Your task to perform on an android device: change the clock style Image 0: 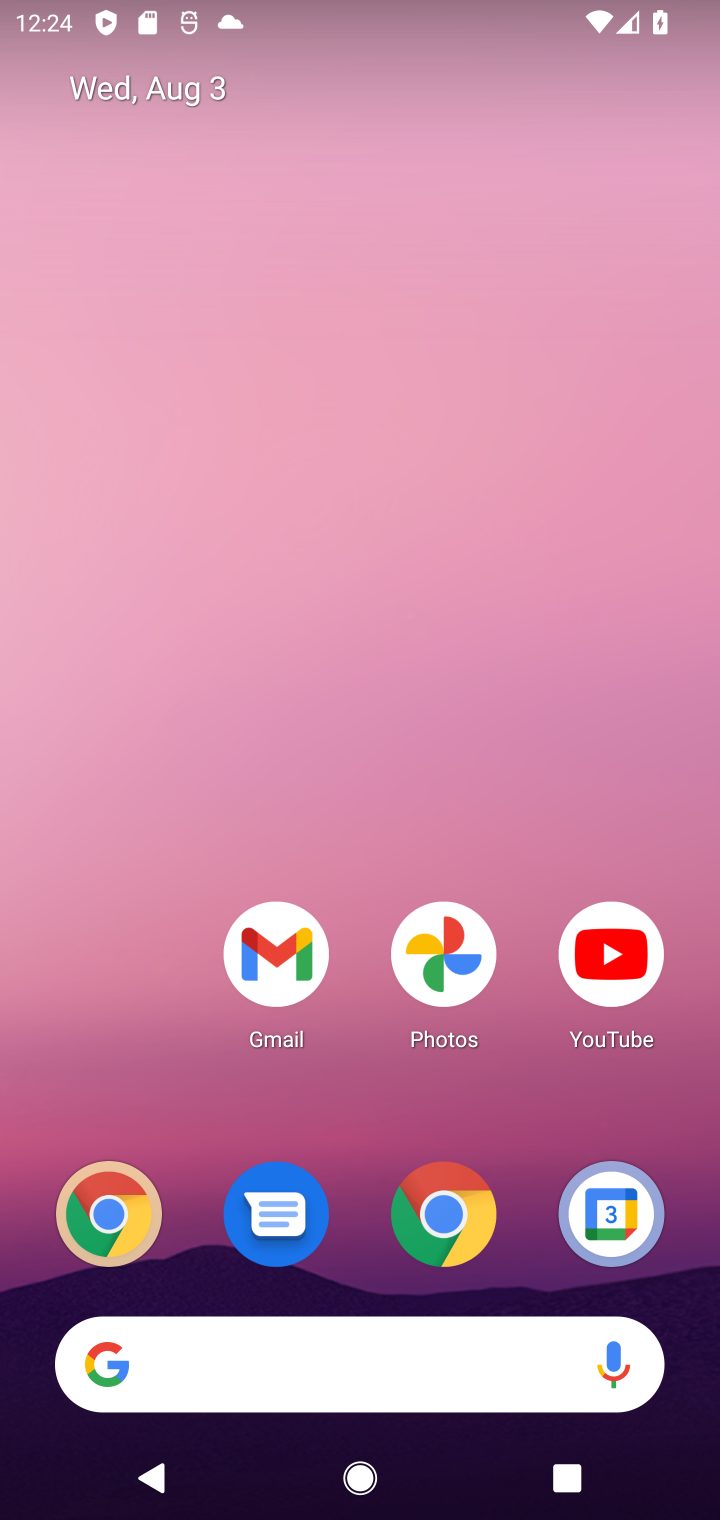
Step 0: drag from (464, 1446) to (354, 310)
Your task to perform on an android device: change the clock style Image 1: 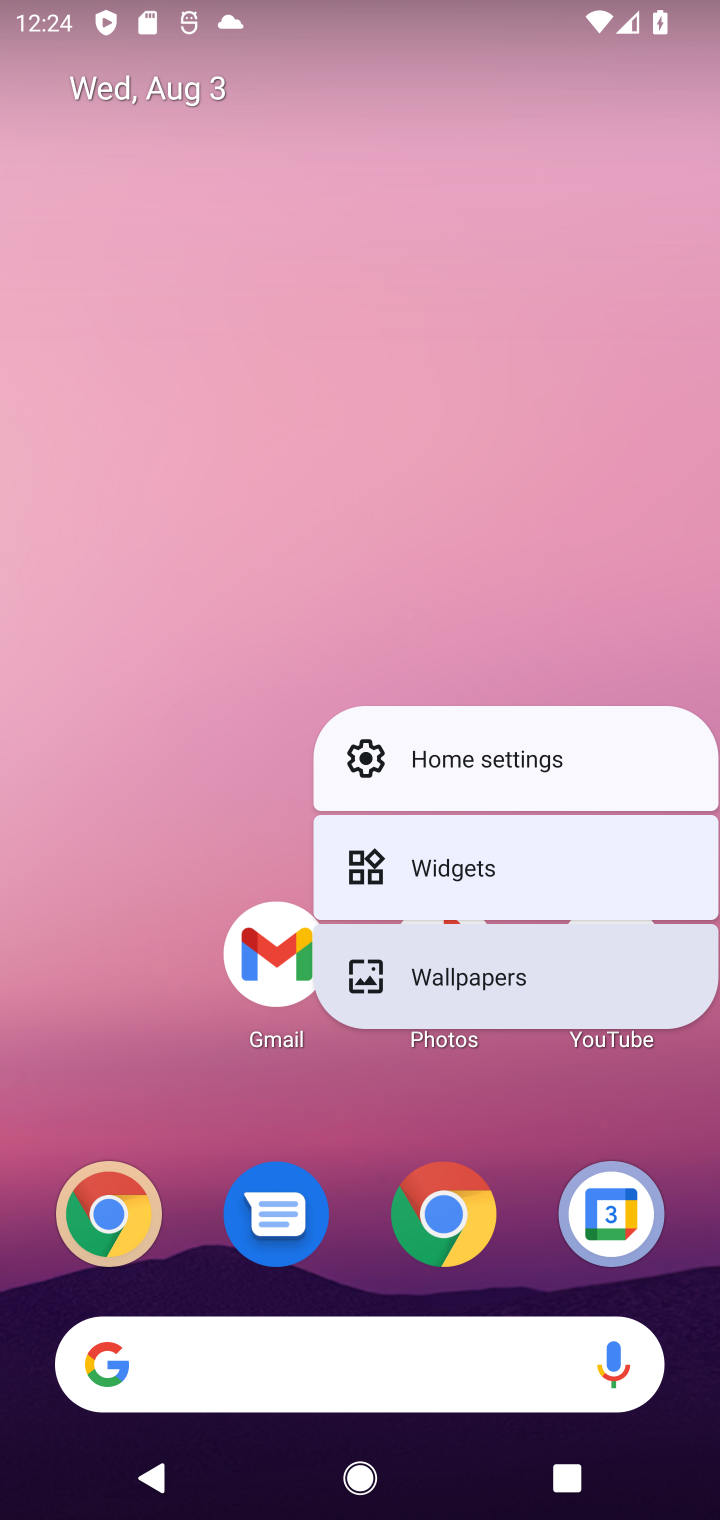
Step 1: drag from (207, 1442) to (277, 2)
Your task to perform on an android device: change the clock style Image 2: 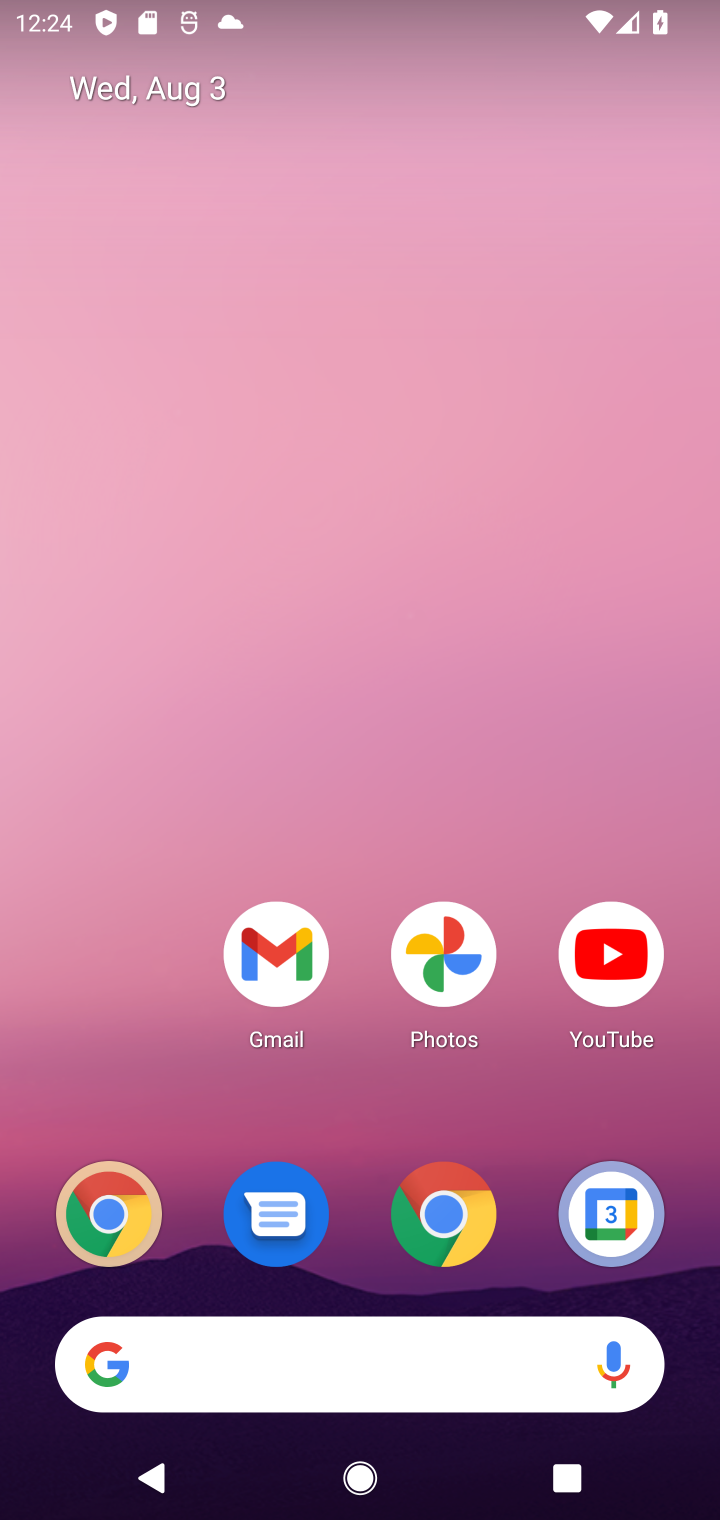
Step 2: drag from (421, 1463) to (561, 32)
Your task to perform on an android device: change the clock style Image 3: 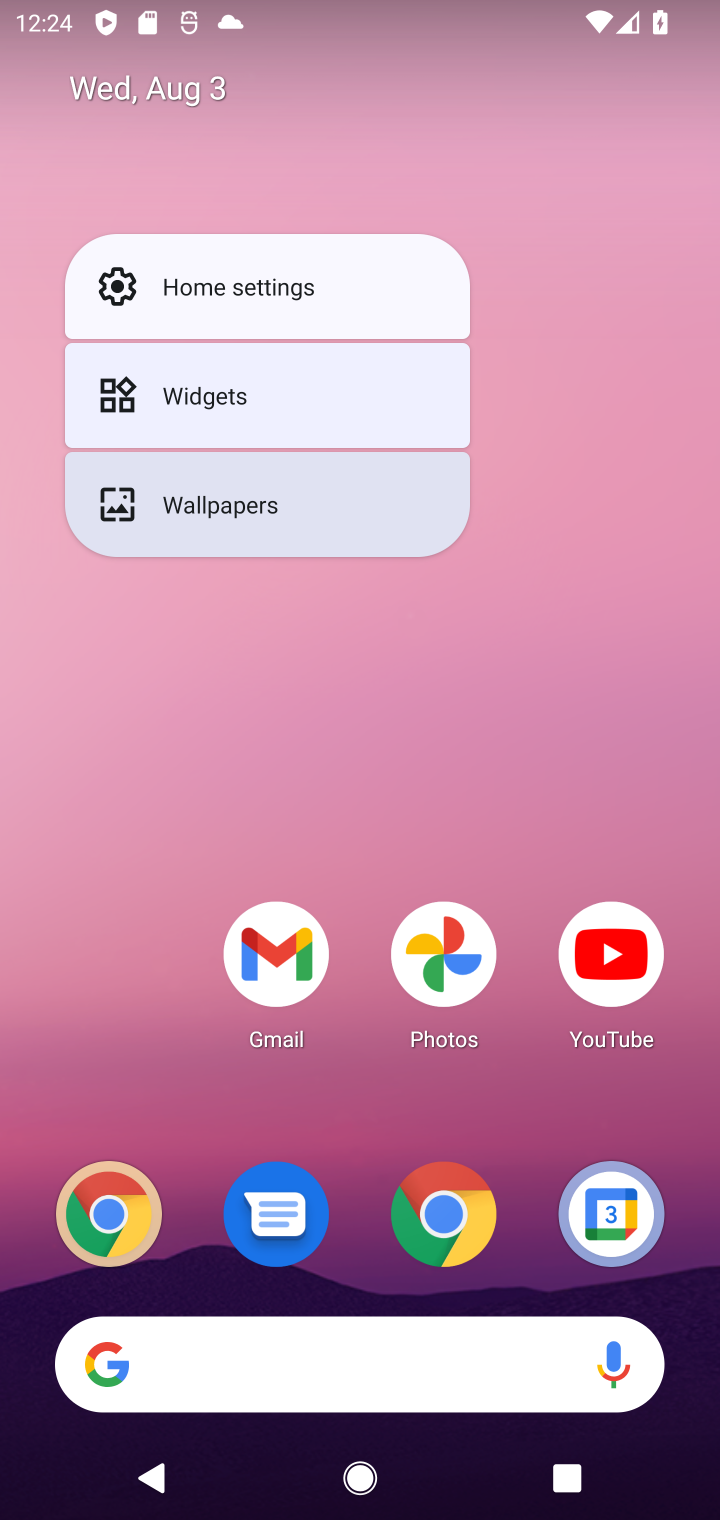
Step 3: press home button
Your task to perform on an android device: change the clock style Image 4: 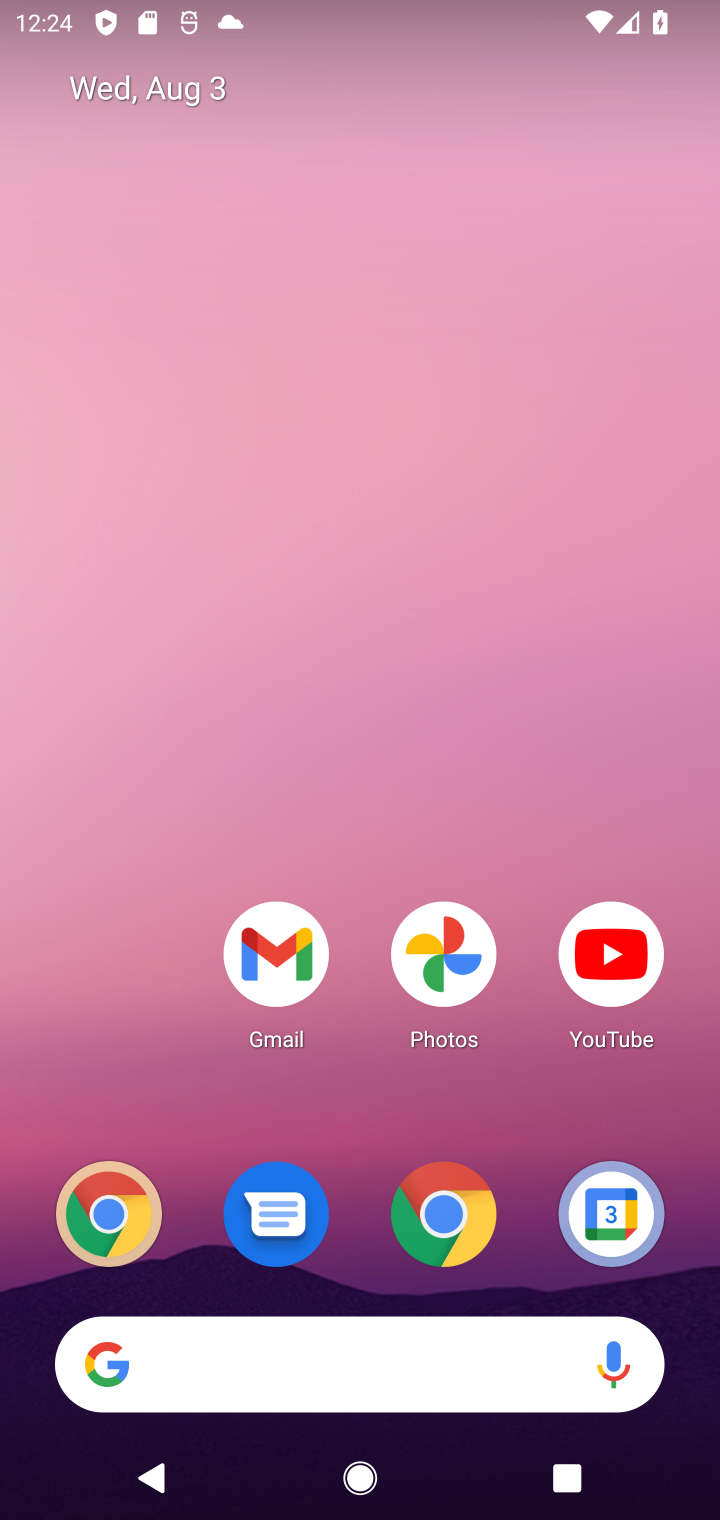
Step 4: drag from (382, 652) to (383, 157)
Your task to perform on an android device: change the clock style Image 5: 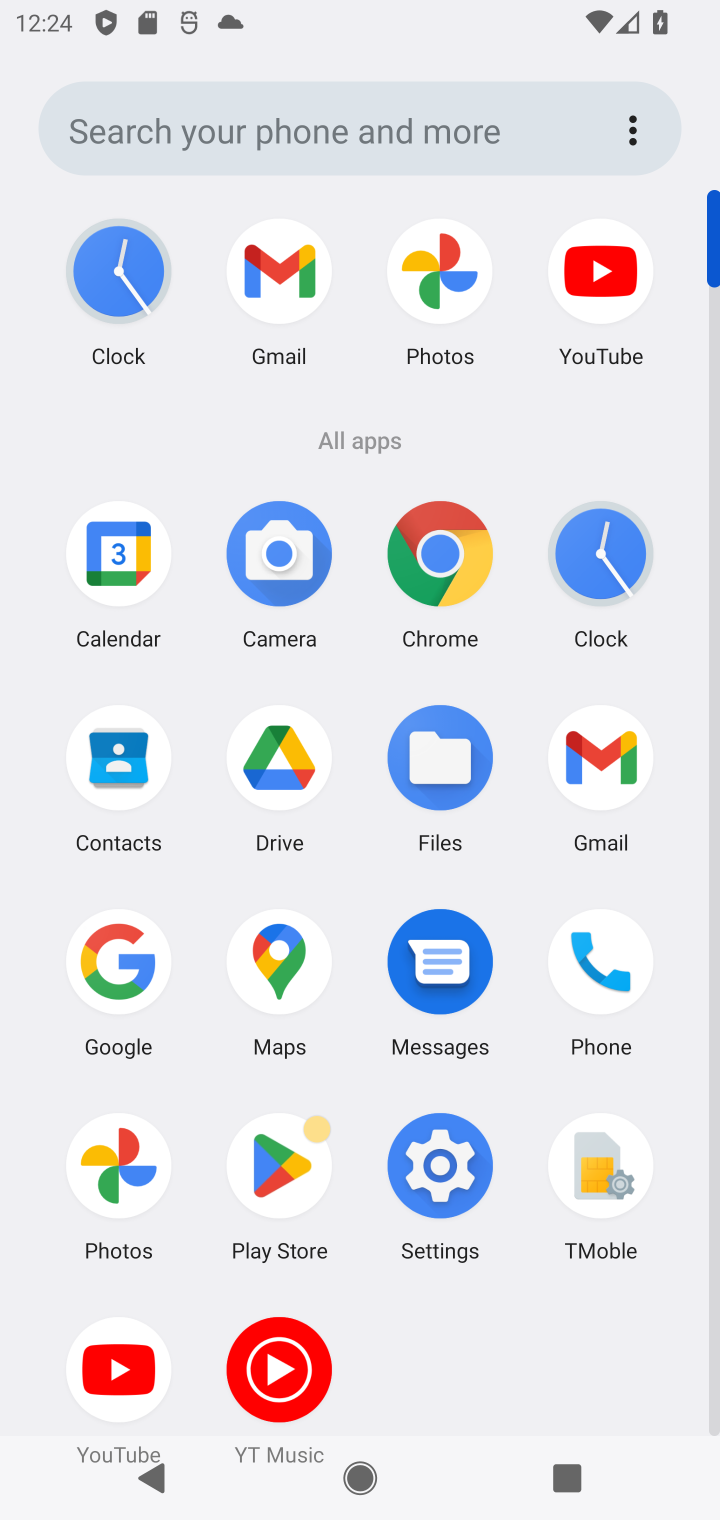
Step 5: click (126, 271)
Your task to perform on an android device: change the clock style Image 6: 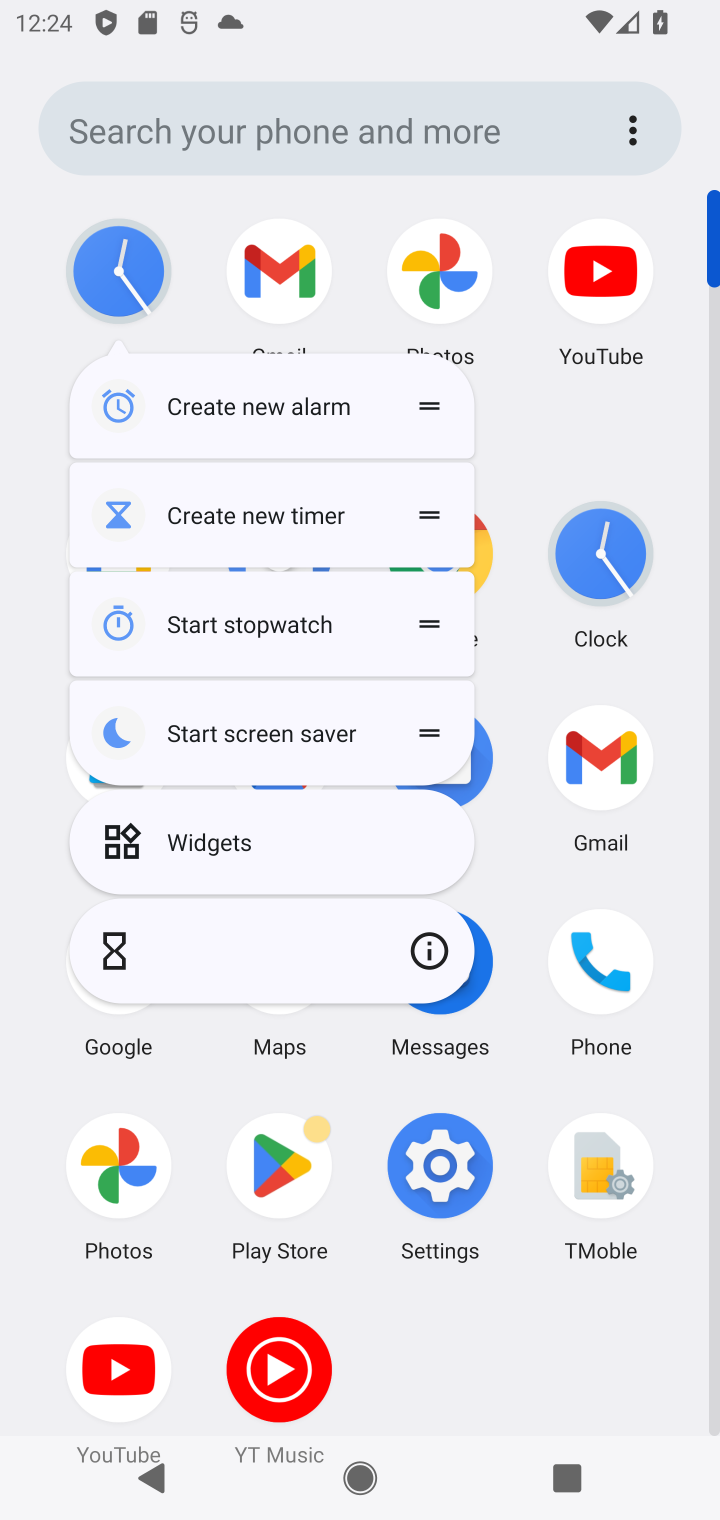
Step 6: click (93, 274)
Your task to perform on an android device: change the clock style Image 7: 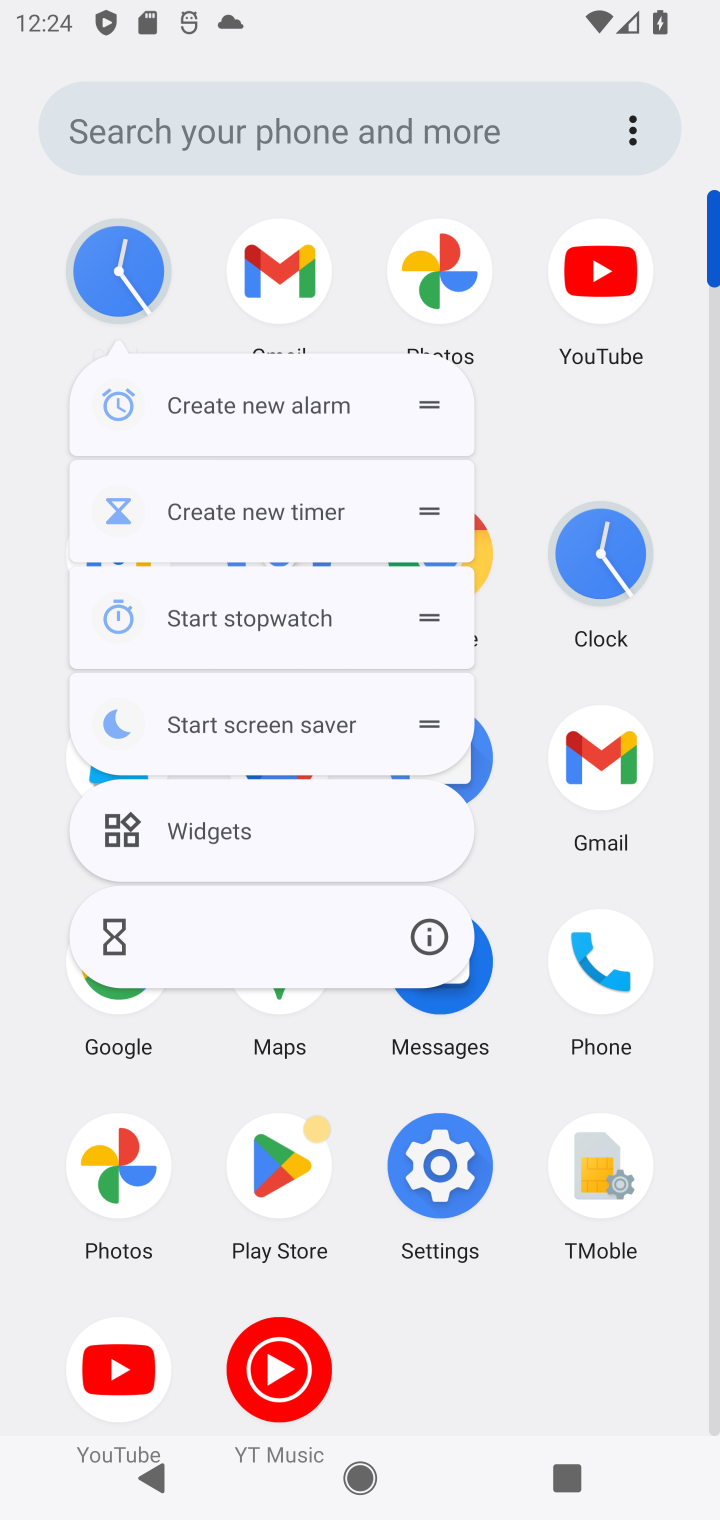
Step 7: click (93, 274)
Your task to perform on an android device: change the clock style Image 8: 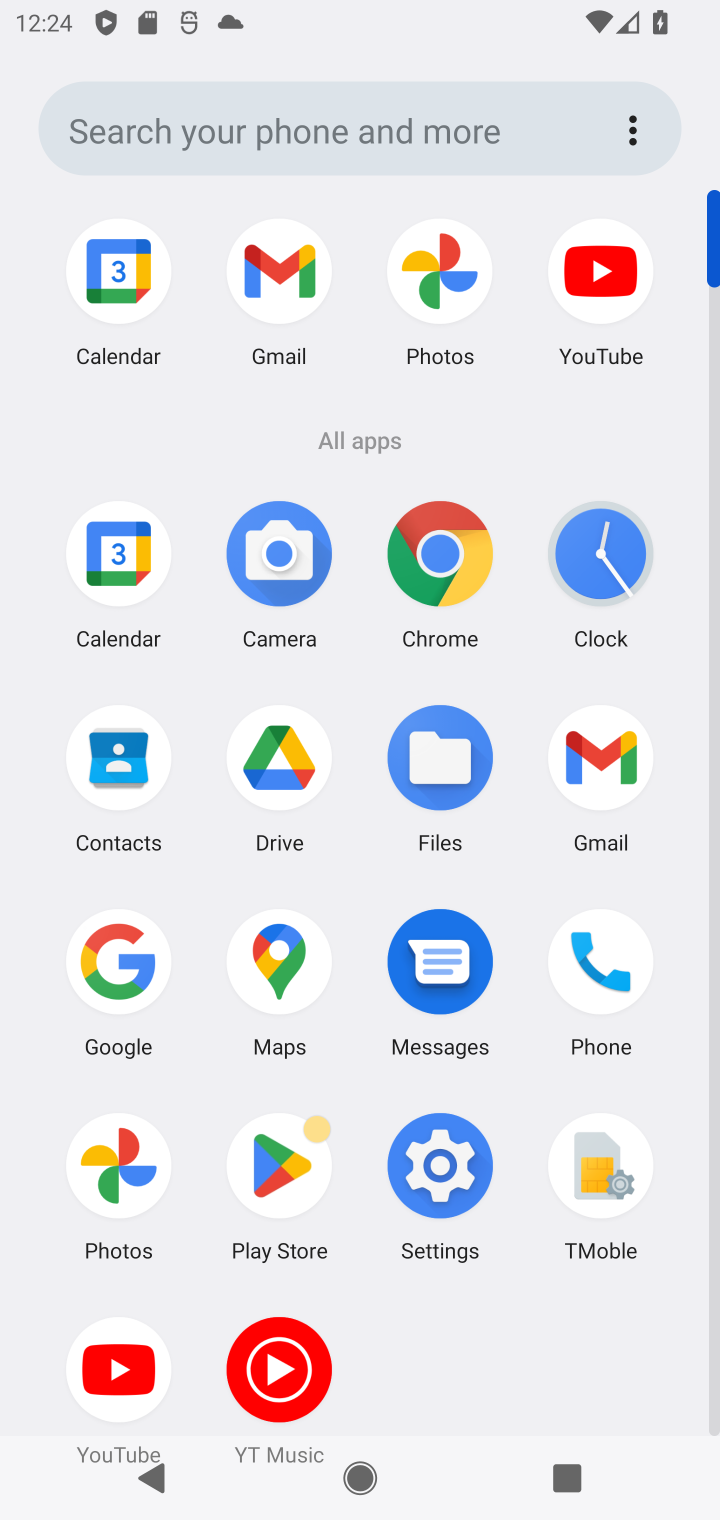
Step 8: click (602, 566)
Your task to perform on an android device: change the clock style Image 9: 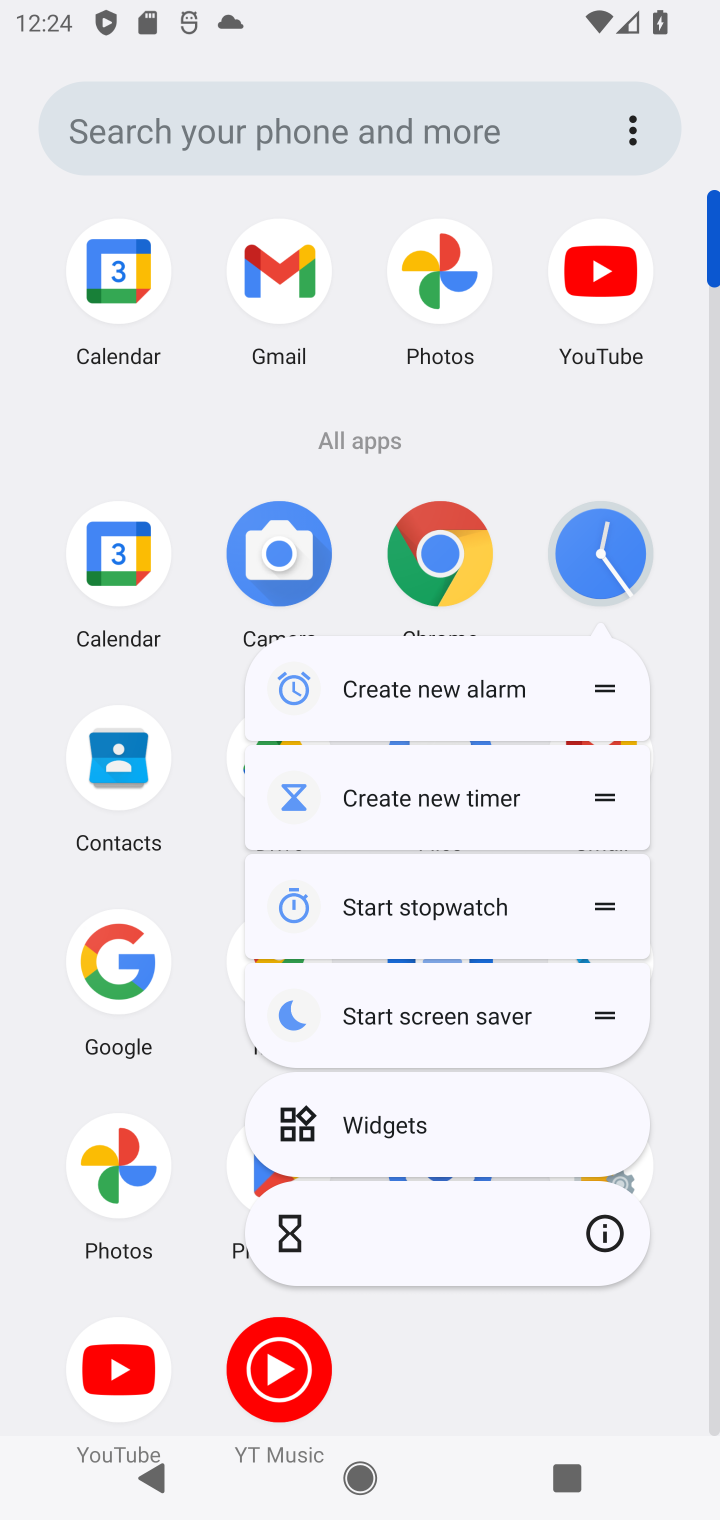
Step 9: click (602, 566)
Your task to perform on an android device: change the clock style Image 10: 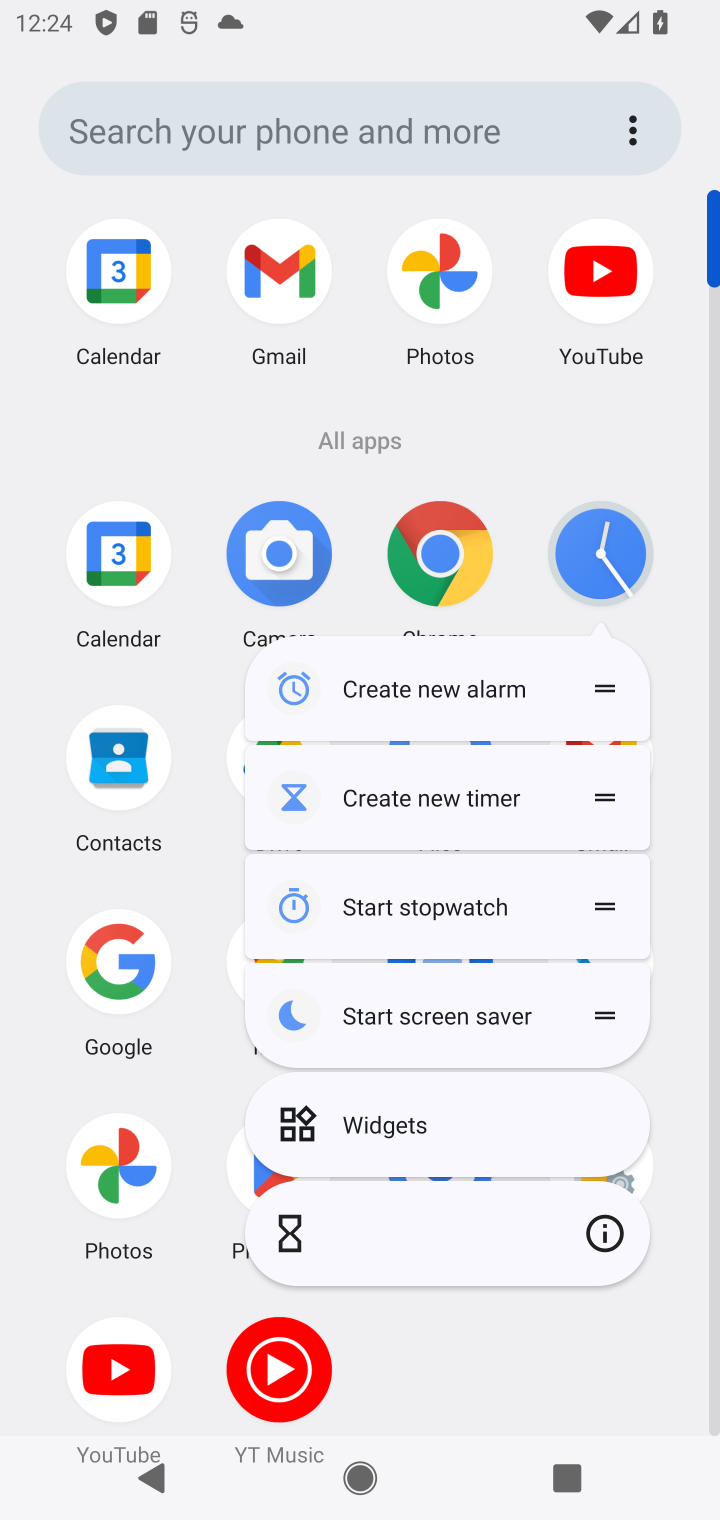
Step 10: click (587, 505)
Your task to perform on an android device: change the clock style Image 11: 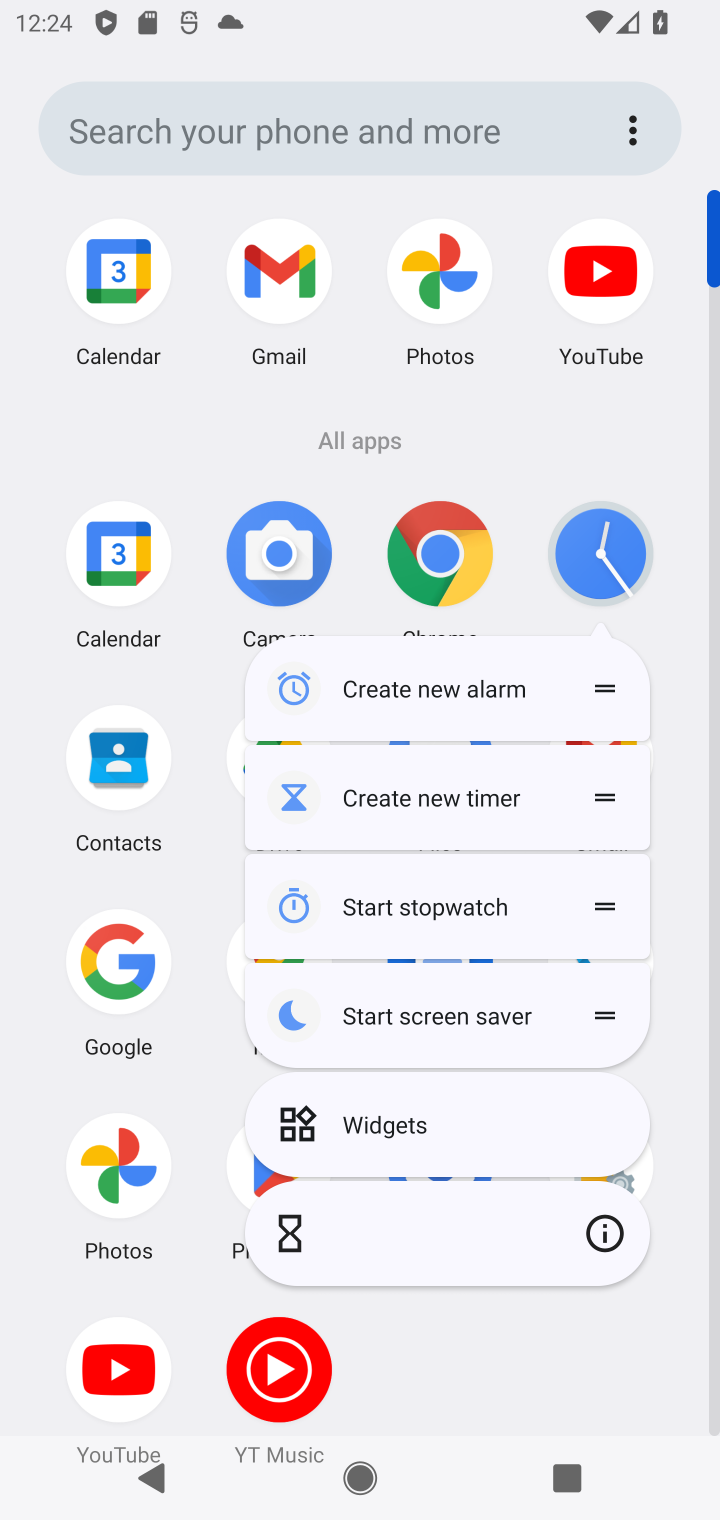
Step 11: click (587, 505)
Your task to perform on an android device: change the clock style Image 12: 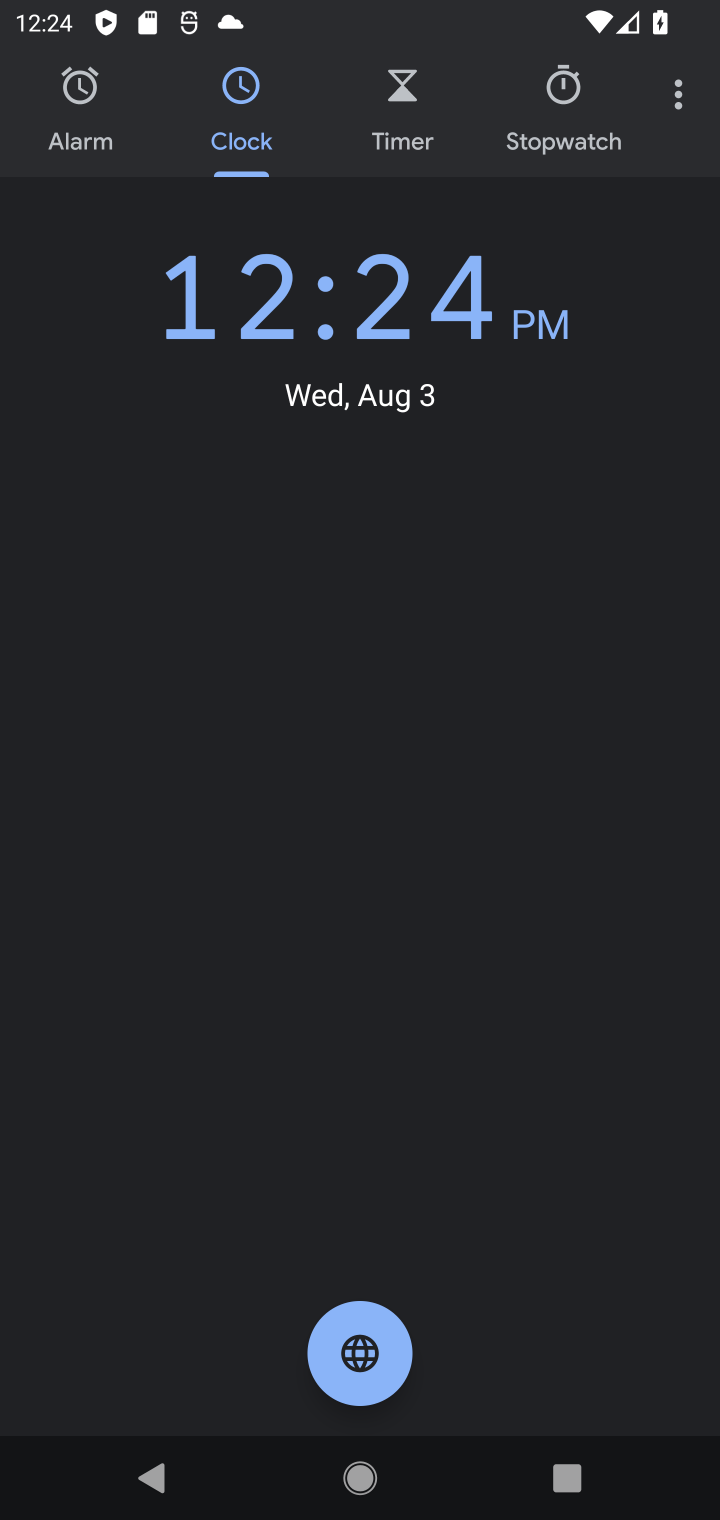
Step 12: click (680, 93)
Your task to perform on an android device: change the clock style Image 13: 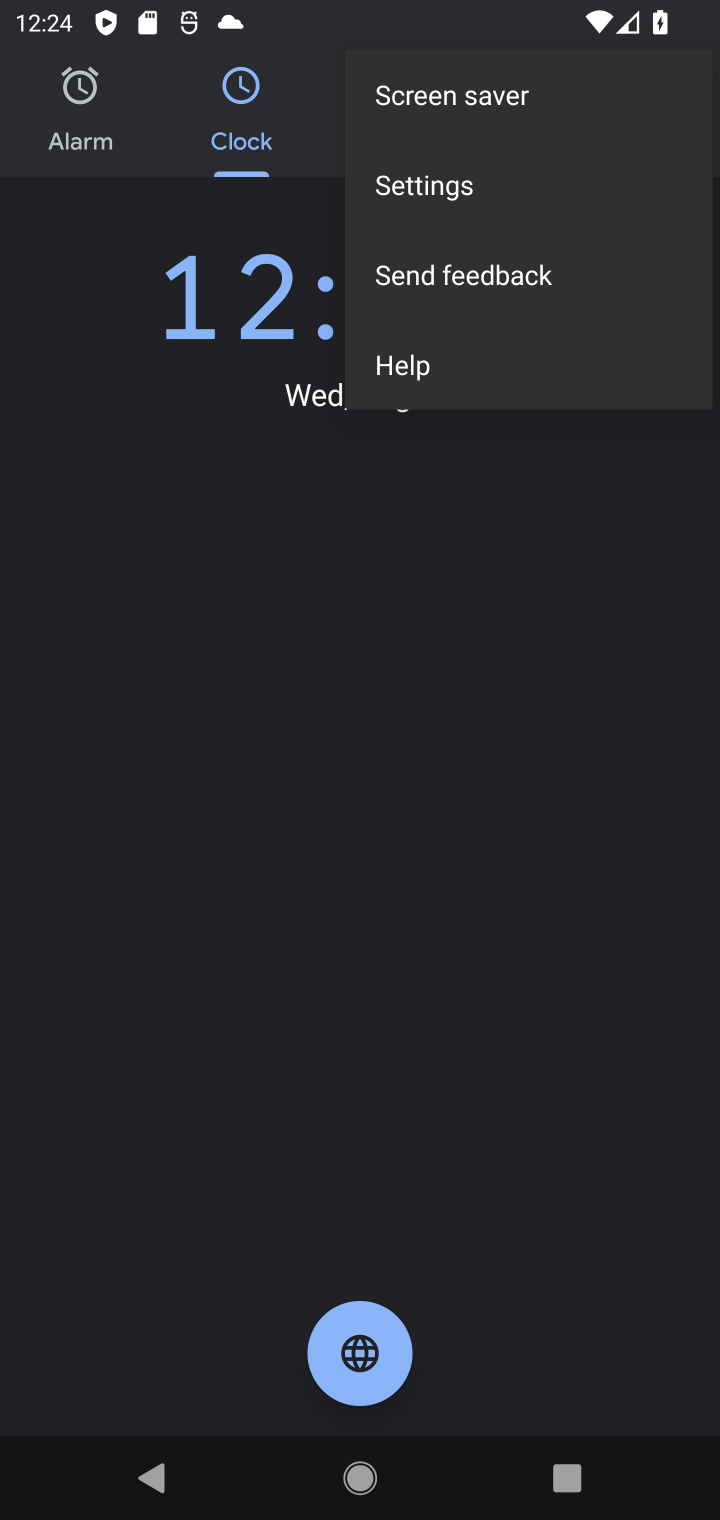
Step 13: click (520, 187)
Your task to perform on an android device: change the clock style Image 14: 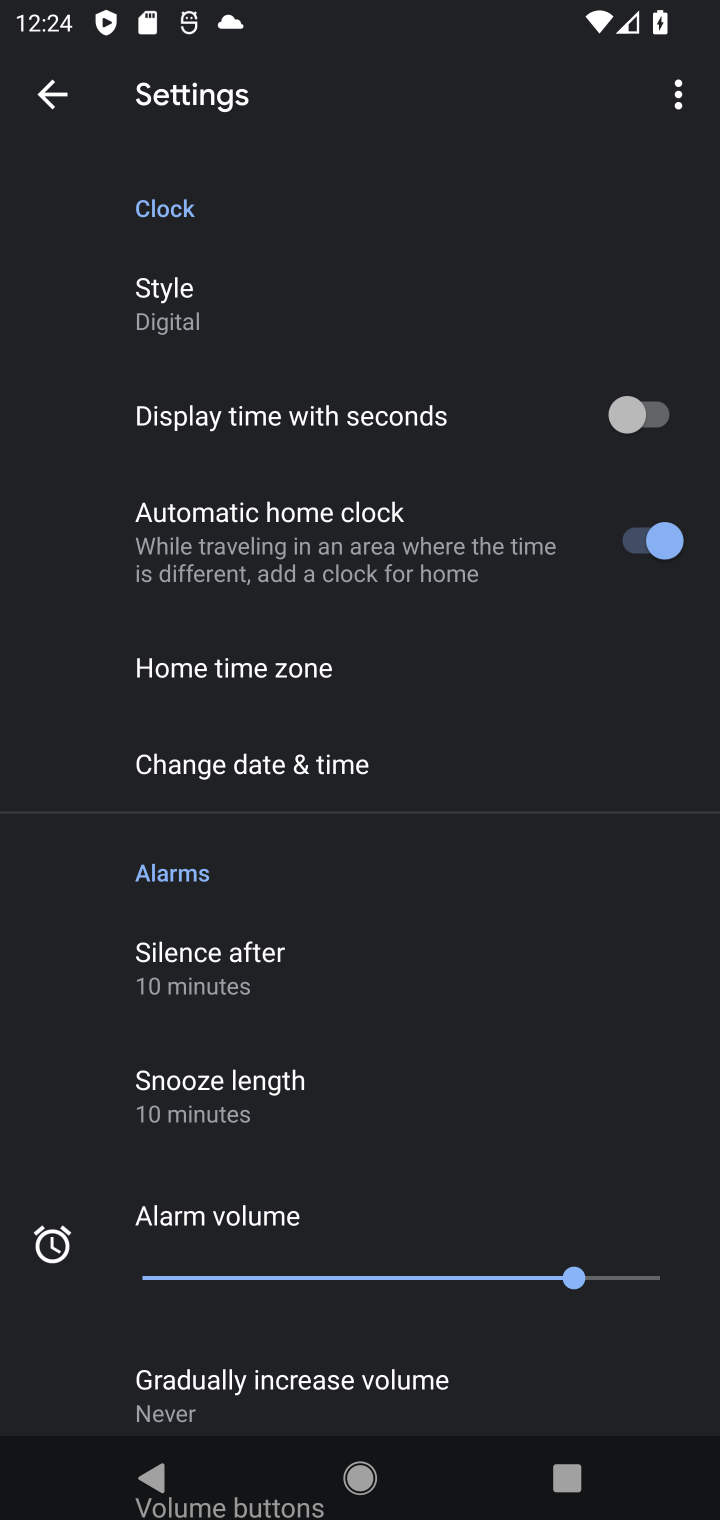
Step 14: click (264, 303)
Your task to perform on an android device: change the clock style Image 15: 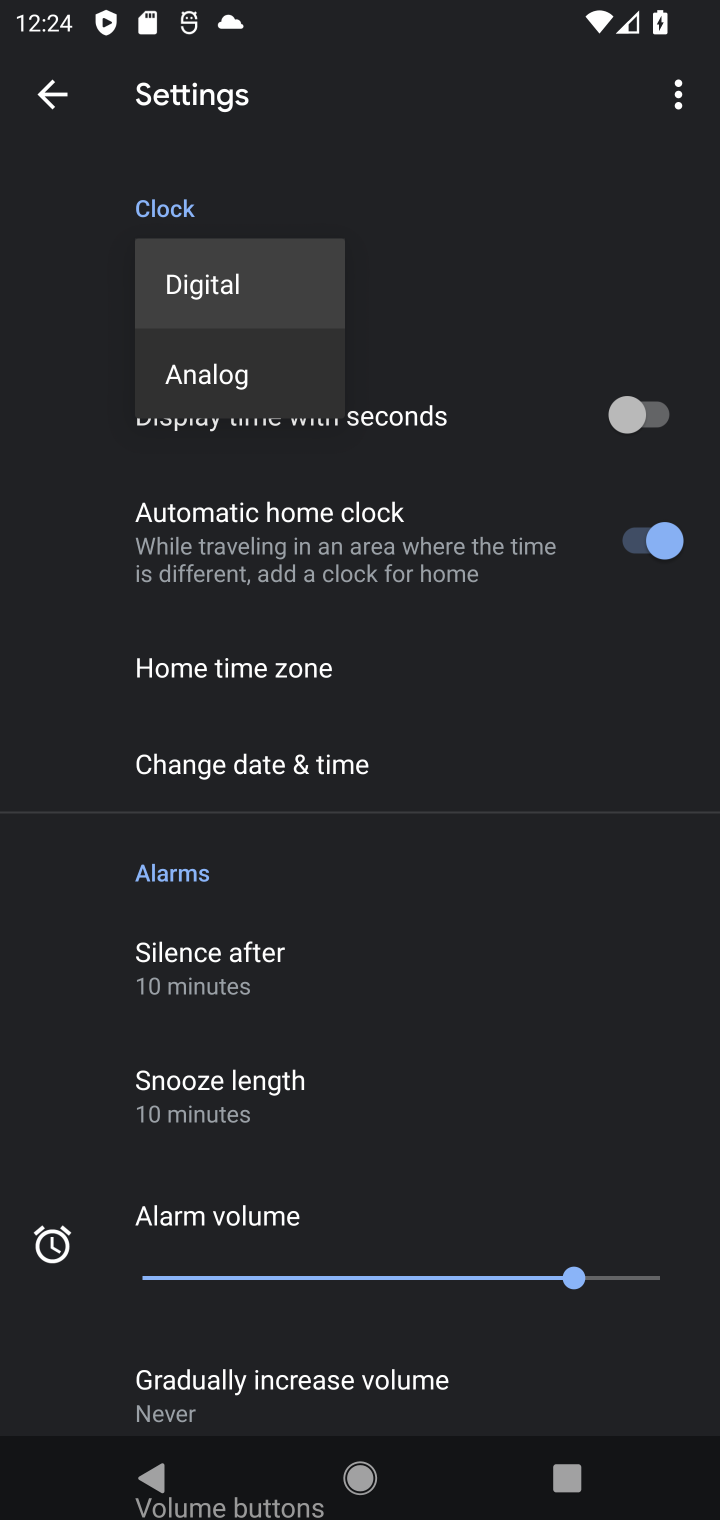
Step 15: click (236, 385)
Your task to perform on an android device: change the clock style Image 16: 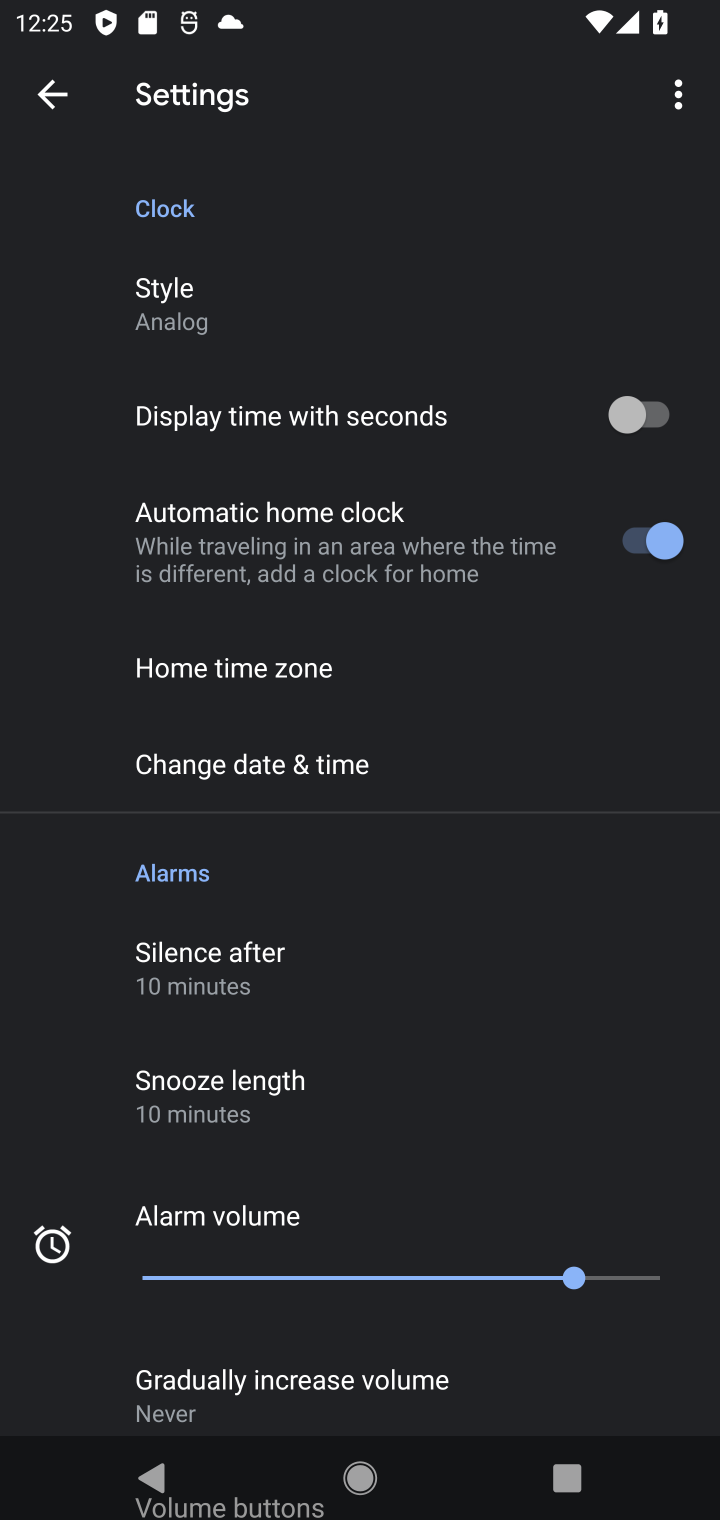
Step 16: task complete